Your task to perform on an android device: uninstall "Microsoft Outlook" Image 0: 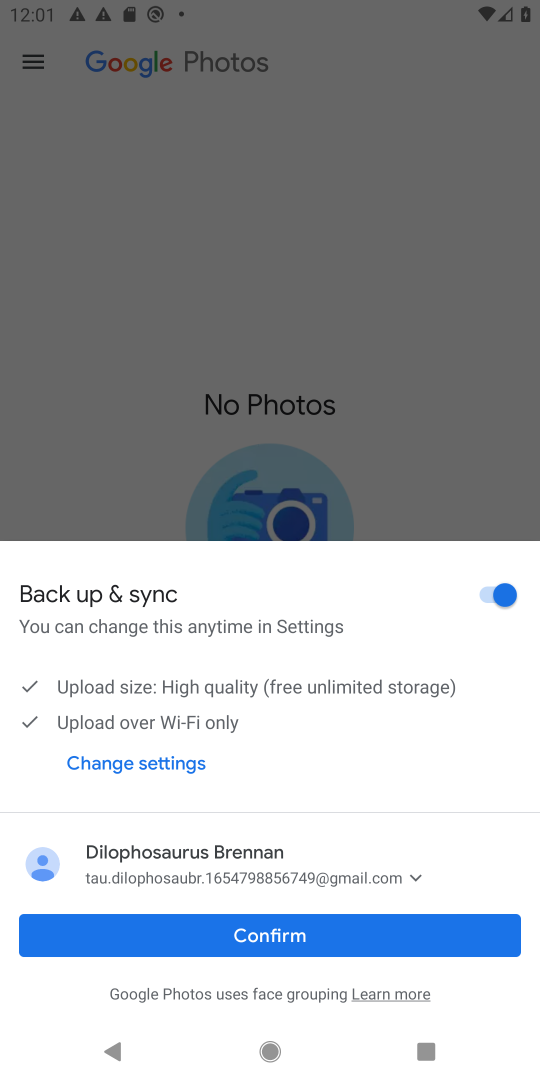
Step 0: press home button
Your task to perform on an android device: uninstall "Microsoft Outlook" Image 1: 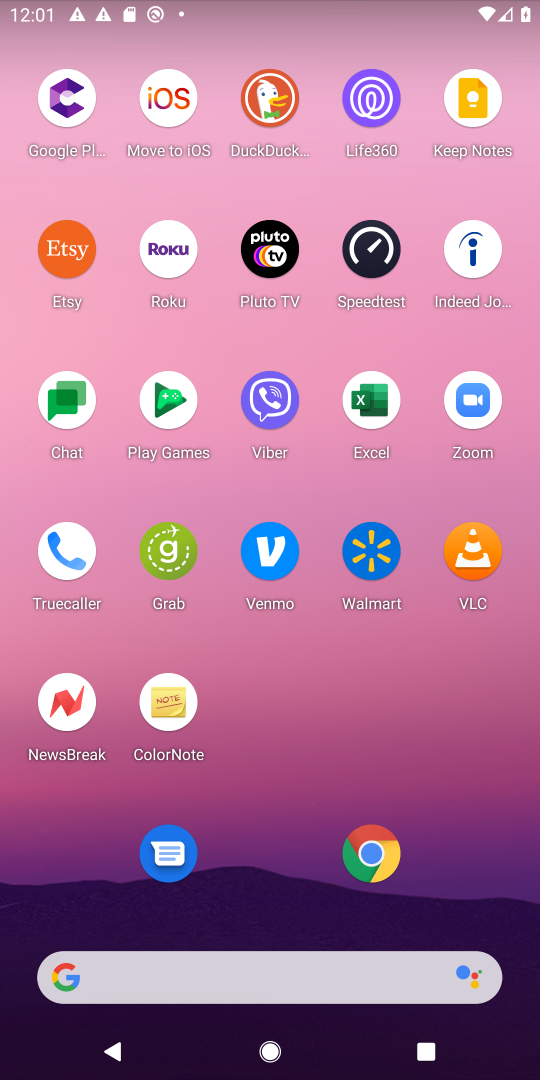
Step 1: drag from (324, 1056) to (270, 337)
Your task to perform on an android device: uninstall "Microsoft Outlook" Image 2: 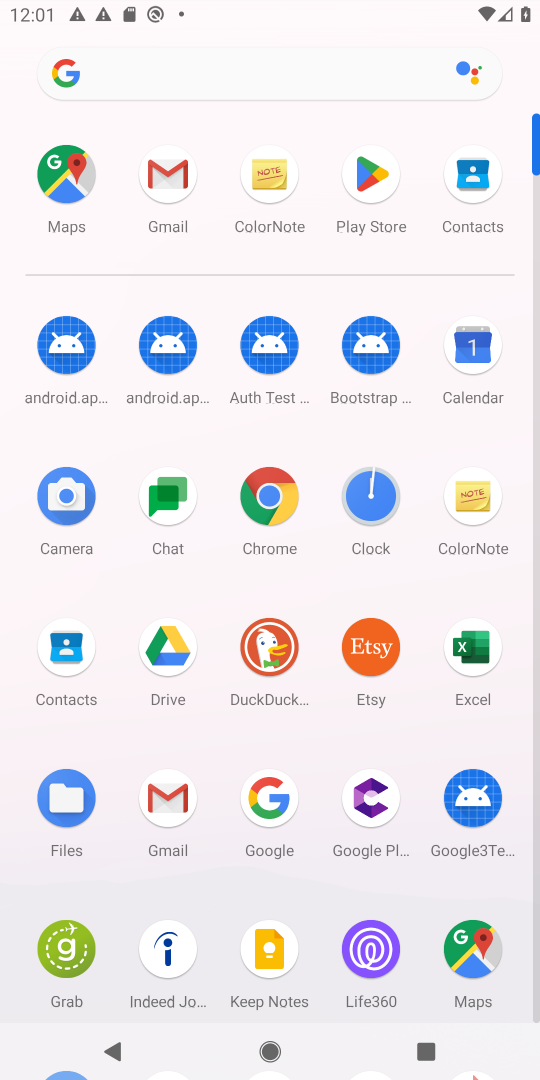
Step 2: click (364, 169)
Your task to perform on an android device: uninstall "Microsoft Outlook" Image 3: 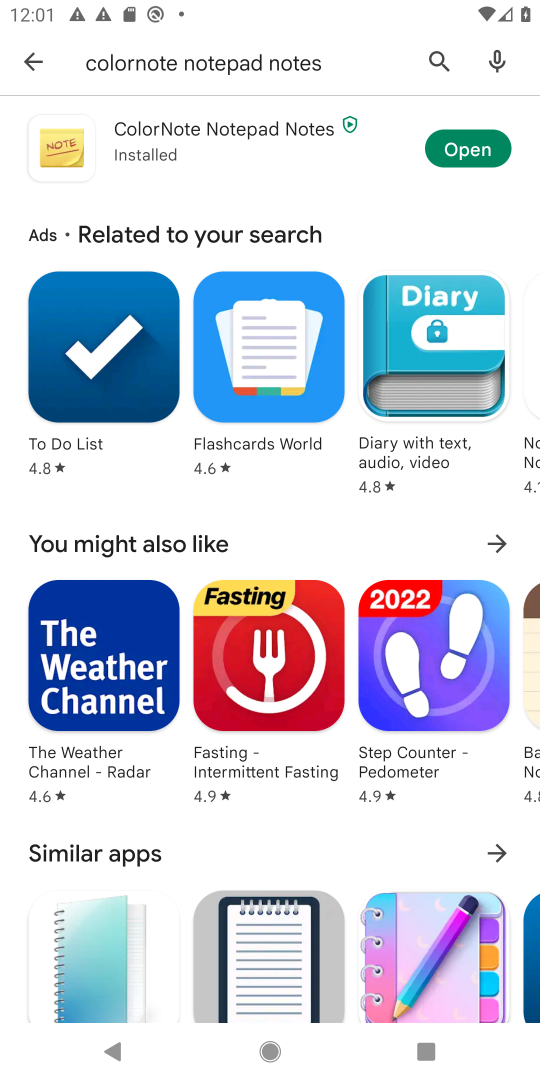
Step 3: click (430, 50)
Your task to perform on an android device: uninstall "Microsoft Outlook" Image 4: 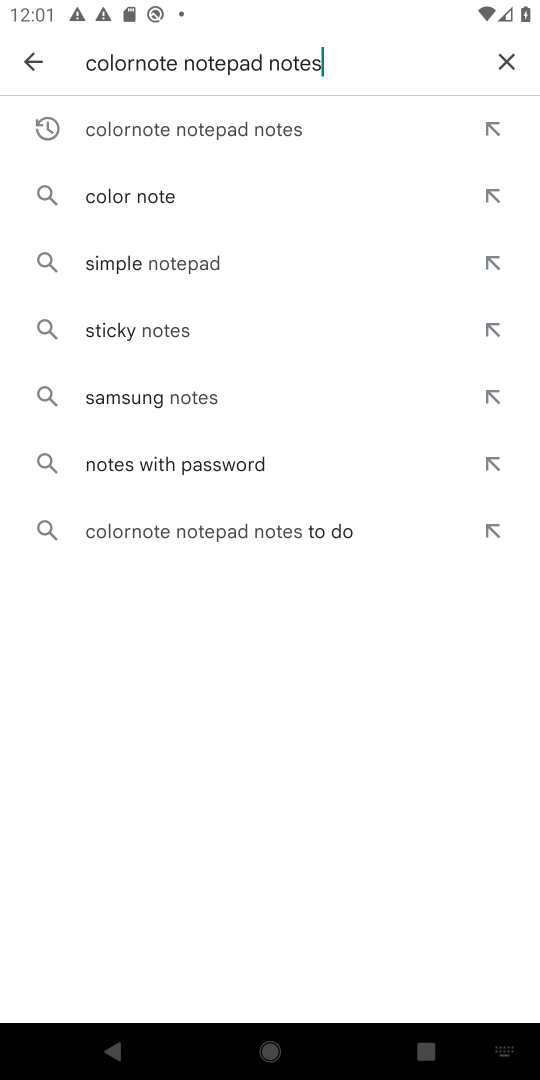
Step 4: click (501, 57)
Your task to perform on an android device: uninstall "Microsoft Outlook" Image 5: 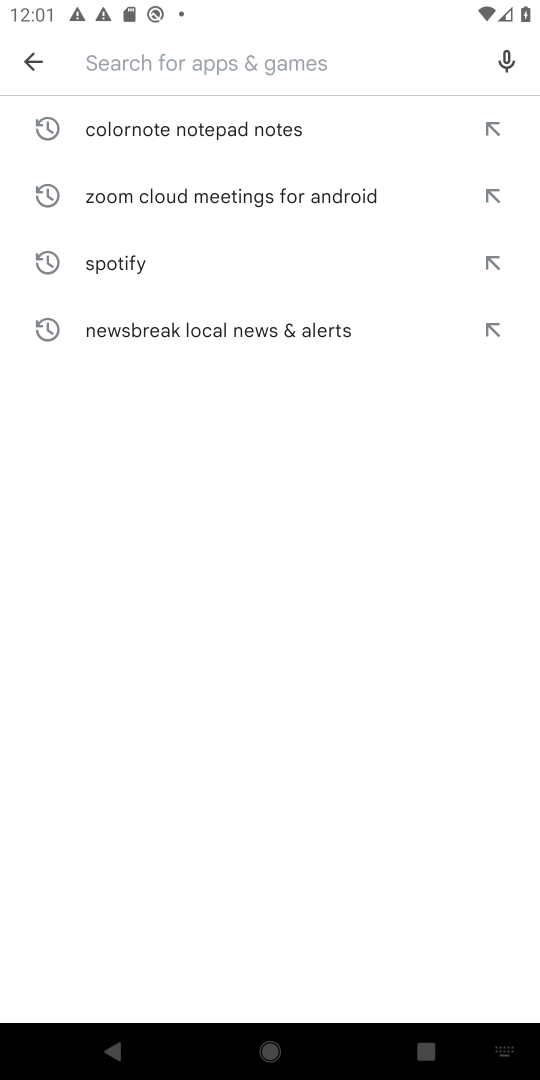
Step 5: type "Microsoft Outlook"
Your task to perform on an android device: uninstall "Microsoft Outlook" Image 6: 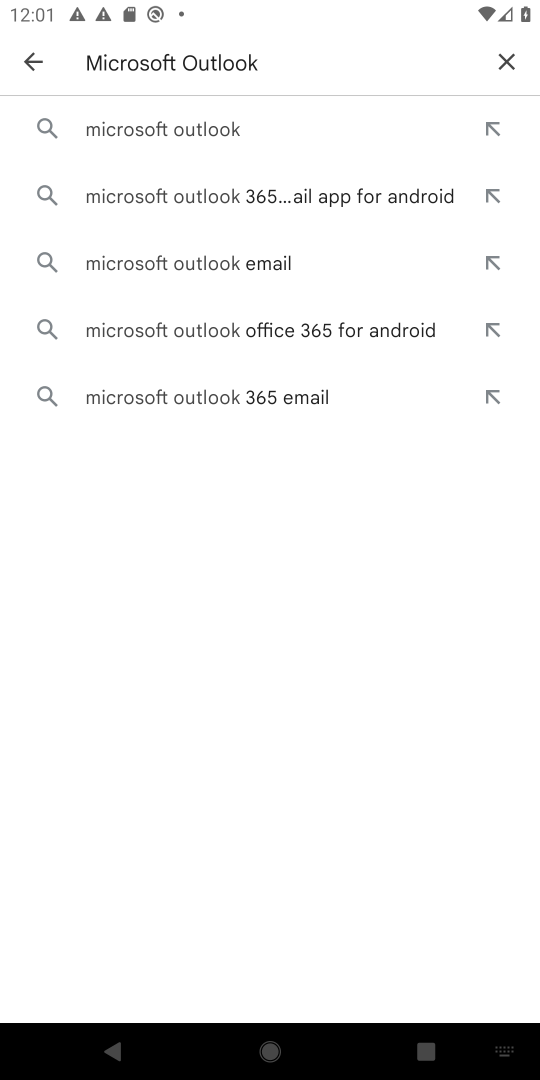
Step 6: click (153, 131)
Your task to perform on an android device: uninstall "Microsoft Outlook" Image 7: 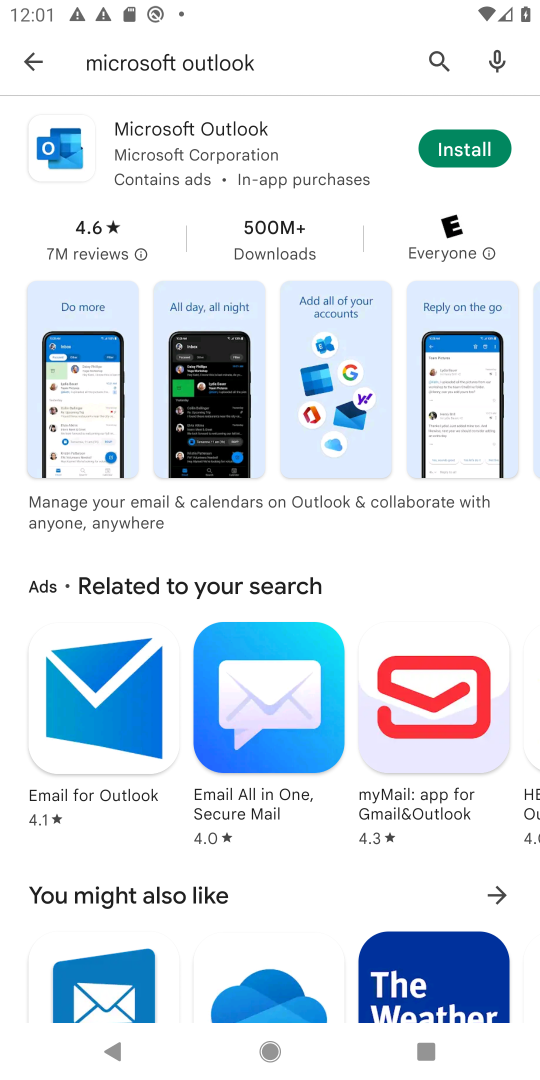
Step 7: click (178, 145)
Your task to perform on an android device: uninstall "Microsoft Outlook" Image 8: 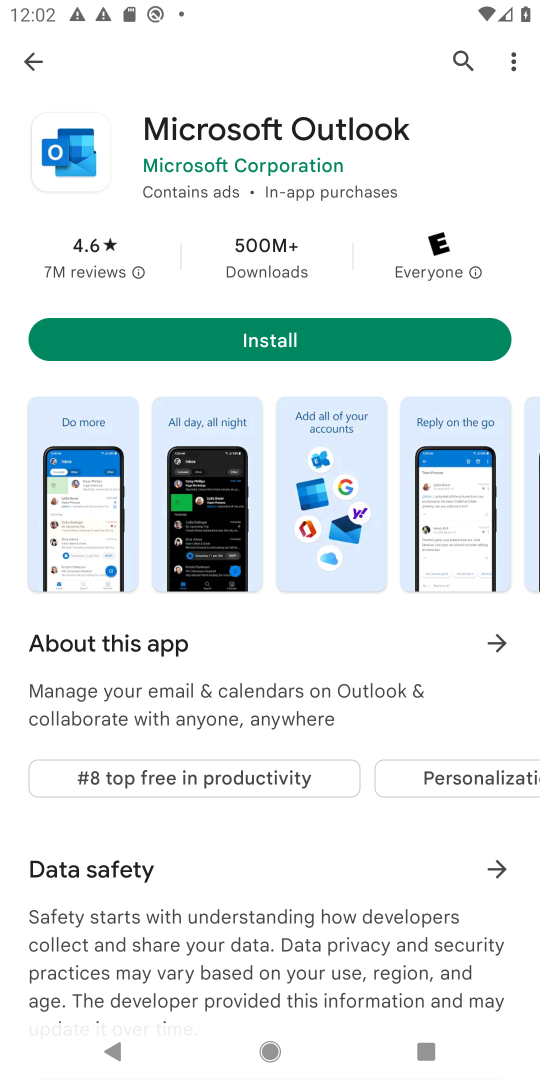
Step 8: task complete